Your task to perform on an android device: turn on translation in the chrome app Image 0: 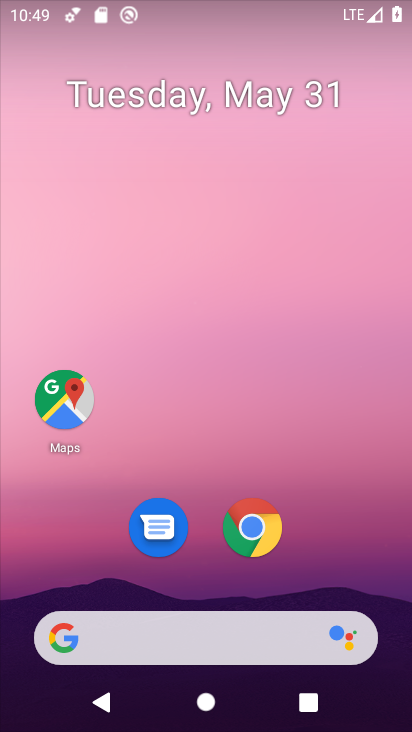
Step 0: click (252, 529)
Your task to perform on an android device: turn on translation in the chrome app Image 1: 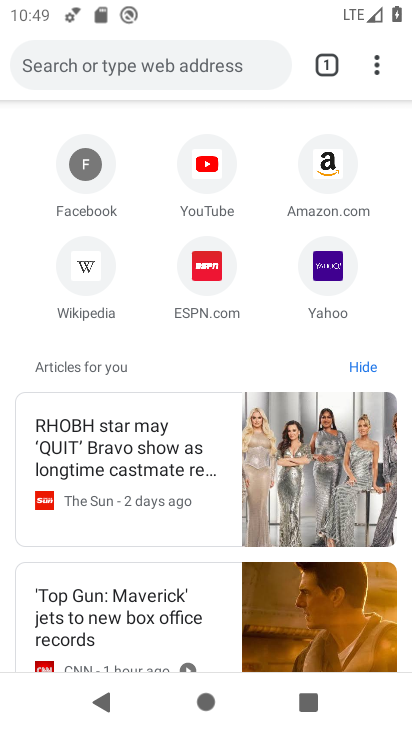
Step 1: click (376, 67)
Your task to perform on an android device: turn on translation in the chrome app Image 2: 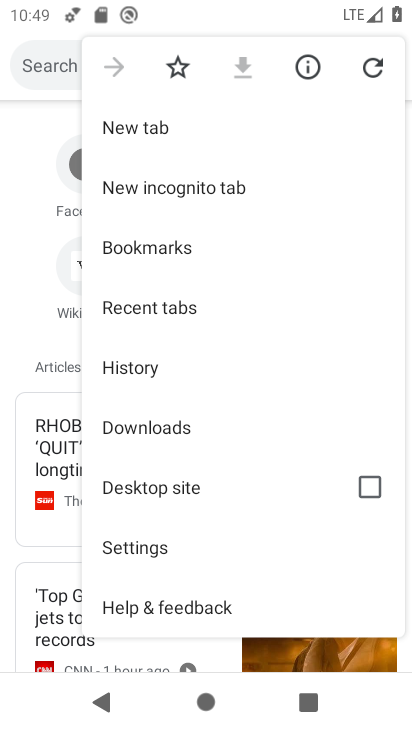
Step 2: click (124, 545)
Your task to perform on an android device: turn on translation in the chrome app Image 3: 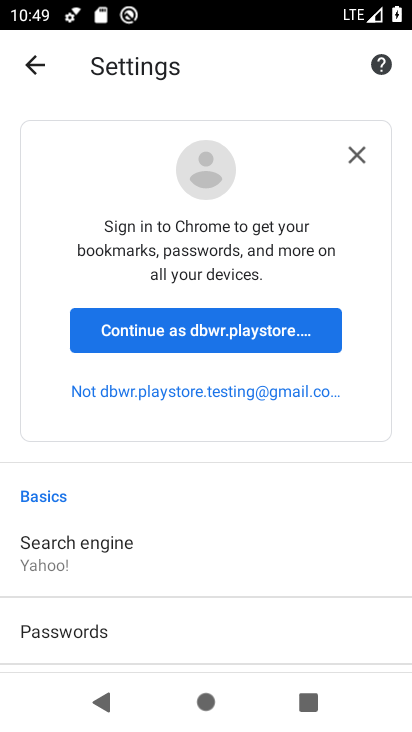
Step 3: drag from (154, 620) to (132, 165)
Your task to perform on an android device: turn on translation in the chrome app Image 4: 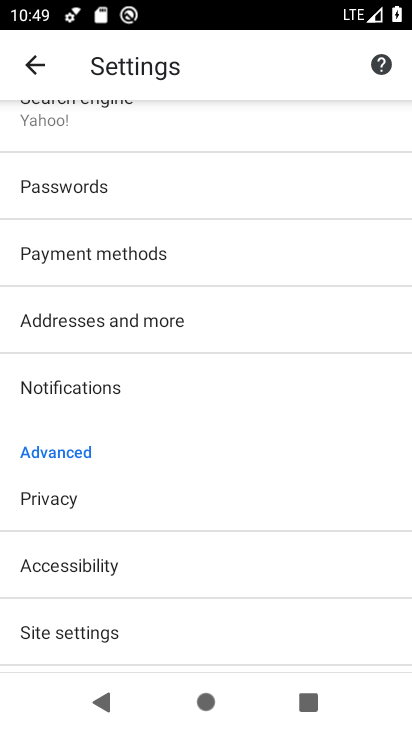
Step 4: drag from (139, 550) to (136, 285)
Your task to perform on an android device: turn on translation in the chrome app Image 5: 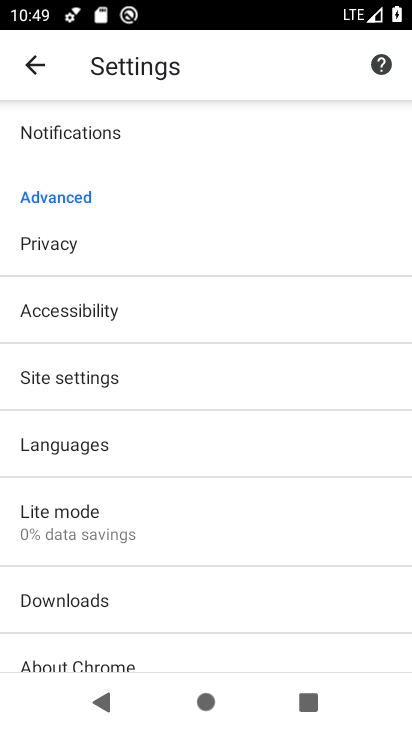
Step 5: click (61, 450)
Your task to perform on an android device: turn on translation in the chrome app Image 6: 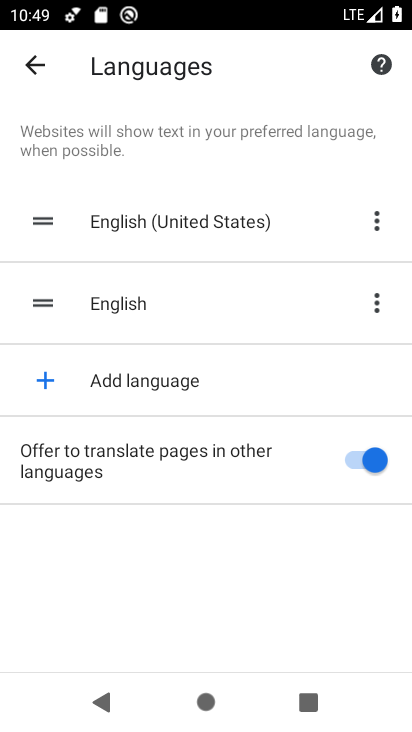
Step 6: task complete